Your task to perform on an android device: open app "LinkedIn" Image 0: 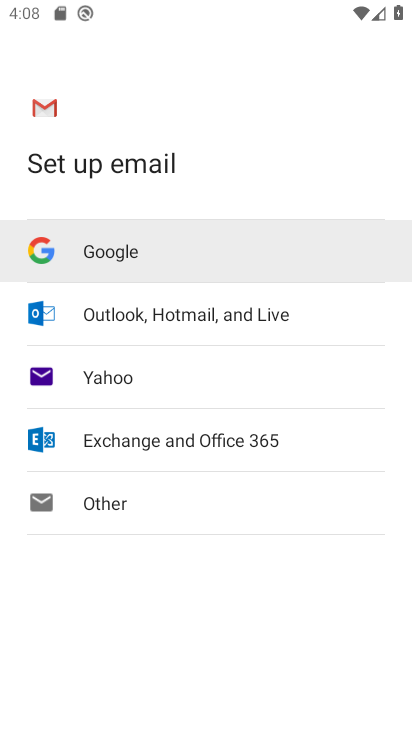
Step 0: press home button
Your task to perform on an android device: open app "LinkedIn" Image 1: 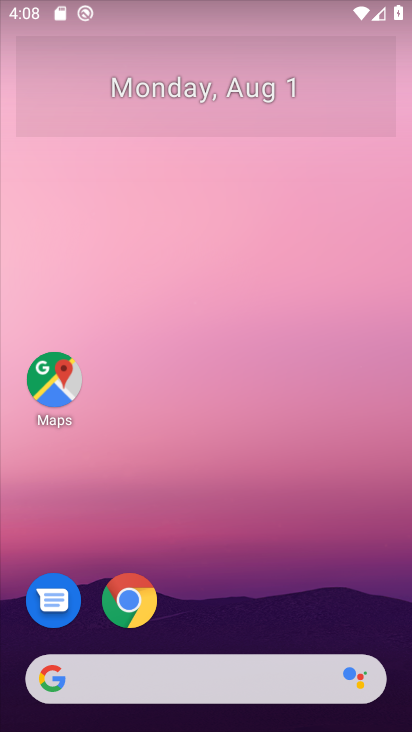
Step 1: drag from (298, 541) to (240, 35)
Your task to perform on an android device: open app "LinkedIn" Image 2: 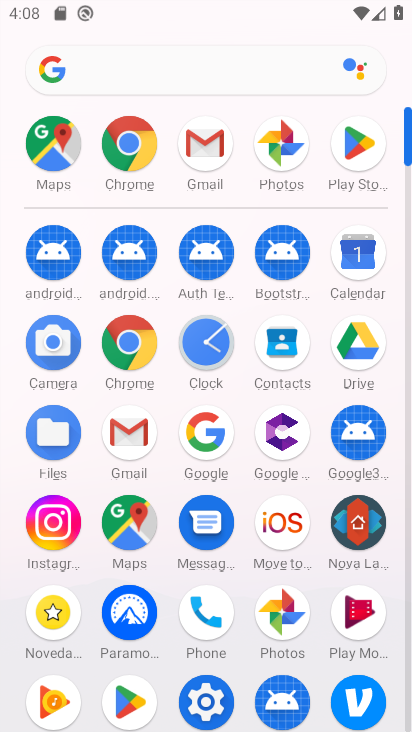
Step 2: click (355, 146)
Your task to perform on an android device: open app "LinkedIn" Image 3: 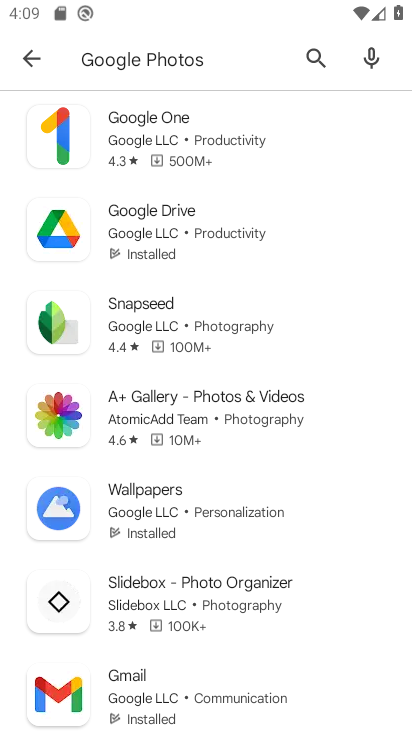
Step 3: click (221, 69)
Your task to perform on an android device: open app "LinkedIn" Image 4: 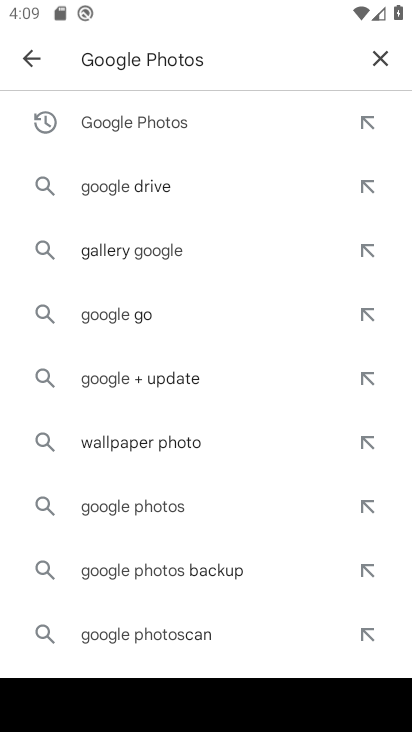
Step 4: click (387, 66)
Your task to perform on an android device: open app "LinkedIn" Image 5: 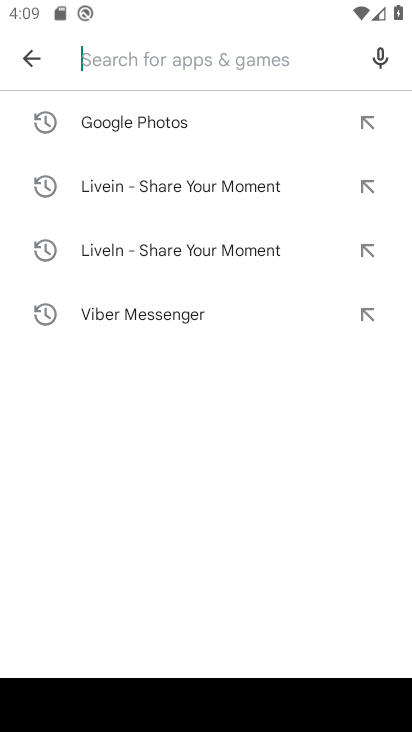
Step 5: type "Linkedln"
Your task to perform on an android device: open app "LinkedIn" Image 6: 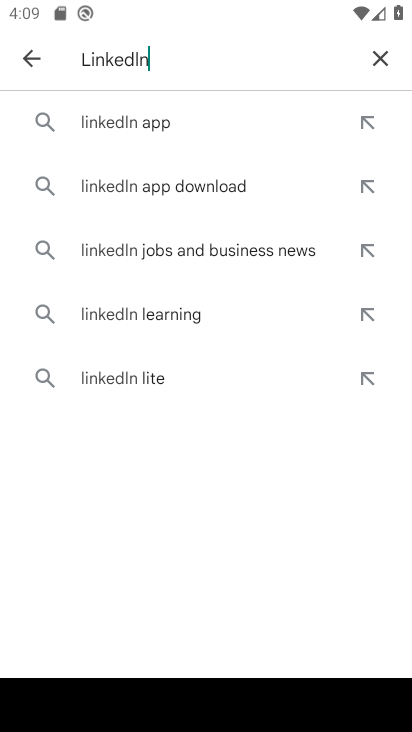
Step 6: press enter
Your task to perform on an android device: open app "LinkedIn" Image 7: 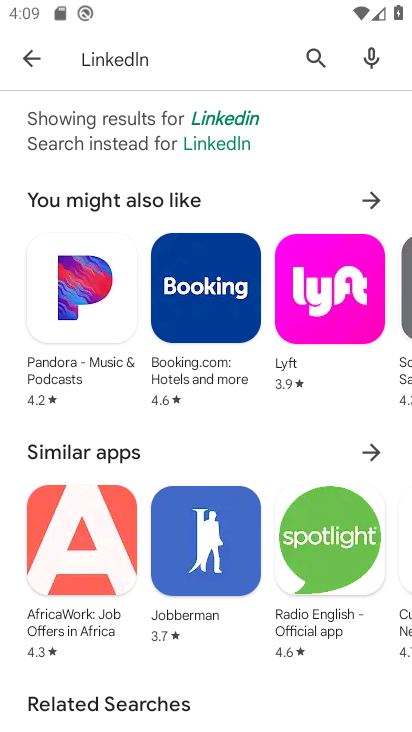
Step 7: click (238, 112)
Your task to perform on an android device: open app "LinkedIn" Image 8: 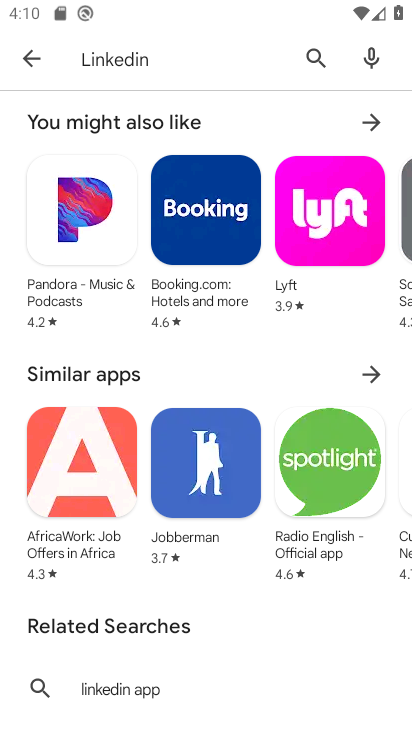
Step 8: task complete